Your task to perform on an android device: toggle javascript in the chrome app Image 0: 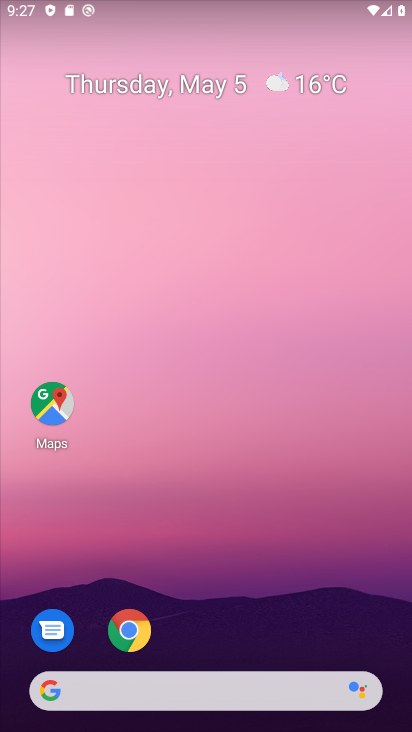
Step 0: click (116, 636)
Your task to perform on an android device: toggle javascript in the chrome app Image 1: 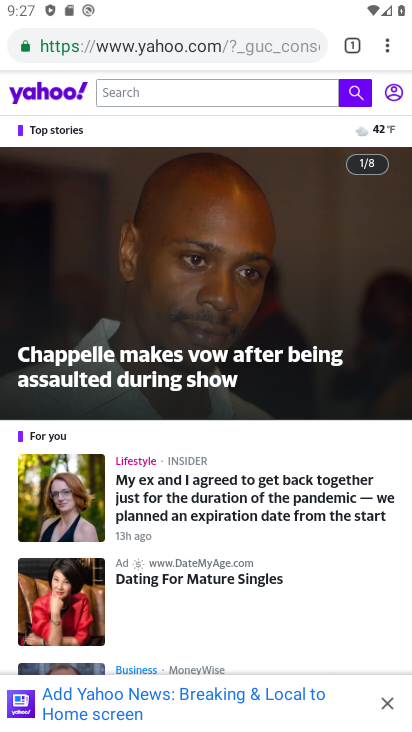
Step 1: drag from (387, 42) to (265, 557)
Your task to perform on an android device: toggle javascript in the chrome app Image 2: 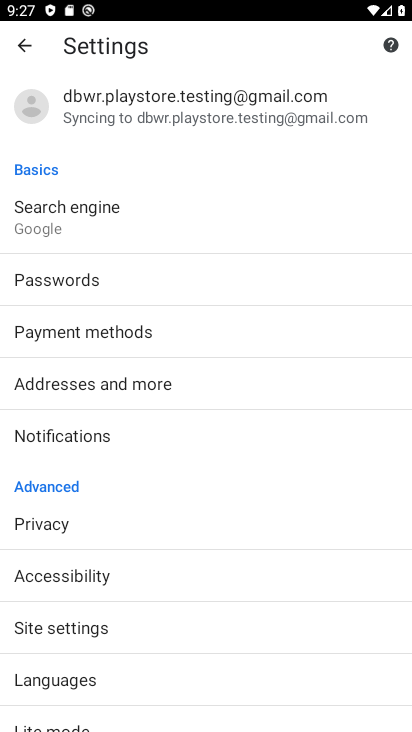
Step 2: drag from (117, 672) to (148, 379)
Your task to perform on an android device: toggle javascript in the chrome app Image 3: 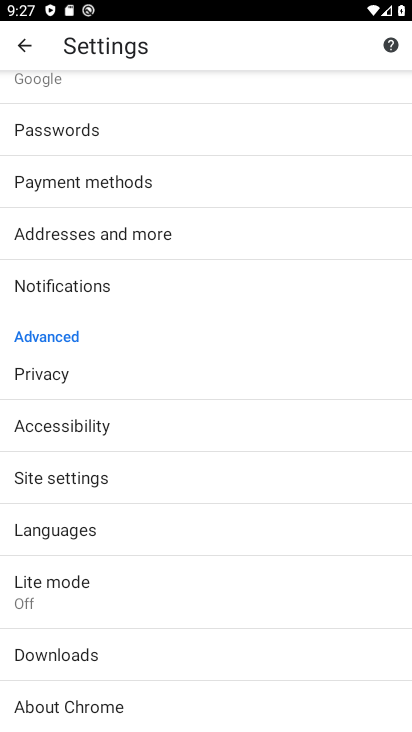
Step 3: click (74, 488)
Your task to perform on an android device: toggle javascript in the chrome app Image 4: 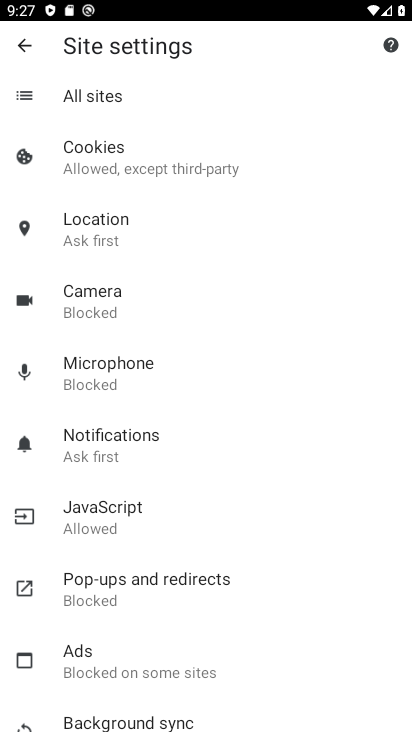
Step 4: click (159, 522)
Your task to perform on an android device: toggle javascript in the chrome app Image 5: 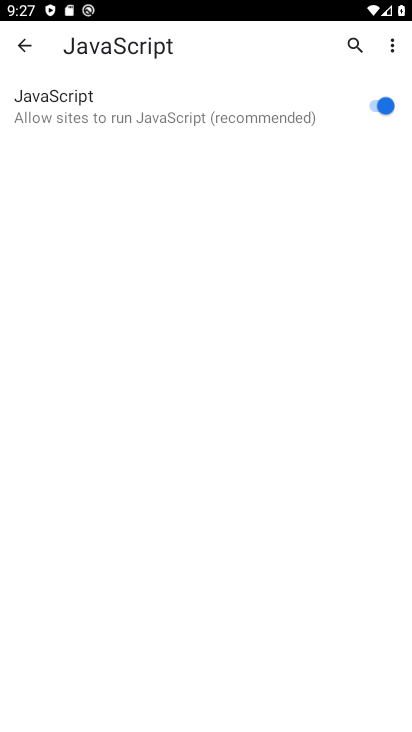
Step 5: click (389, 105)
Your task to perform on an android device: toggle javascript in the chrome app Image 6: 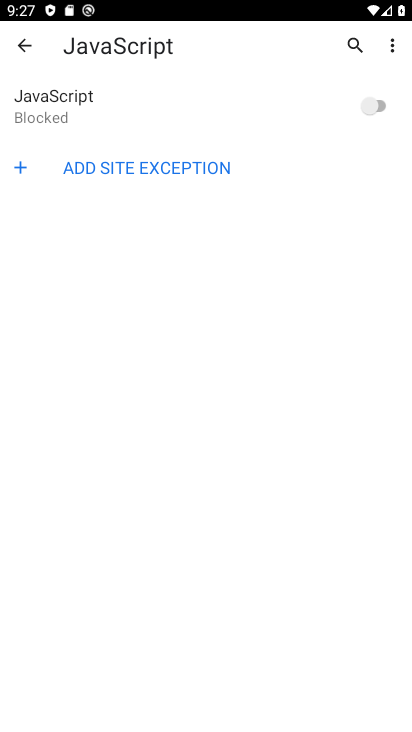
Step 6: task complete